Your task to perform on an android device: Open calendar and show me the first week of next month Image 0: 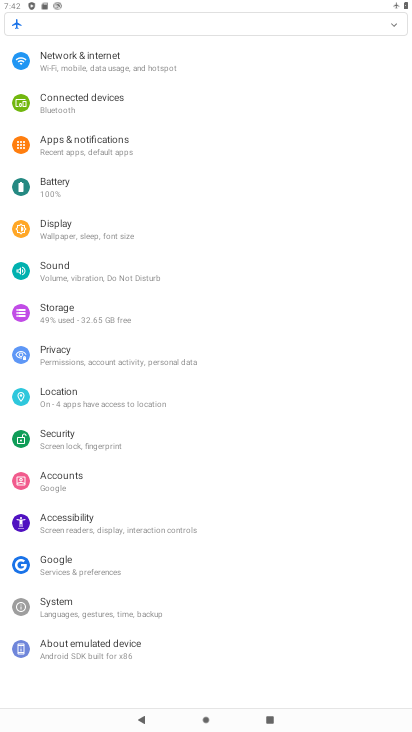
Step 0: press home button
Your task to perform on an android device: Open calendar and show me the first week of next month Image 1: 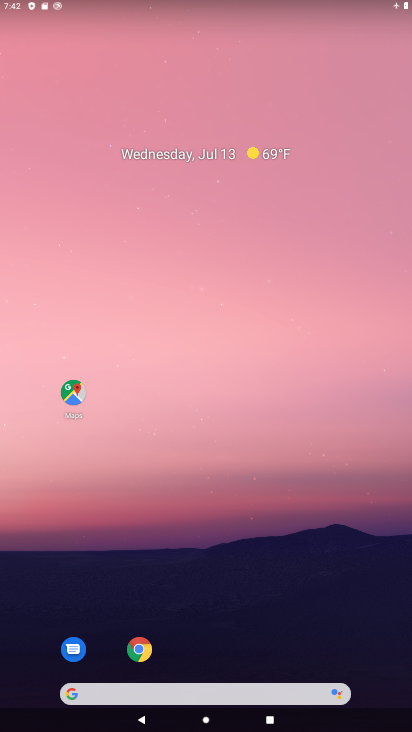
Step 1: drag from (175, 688) to (196, 266)
Your task to perform on an android device: Open calendar and show me the first week of next month Image 2: 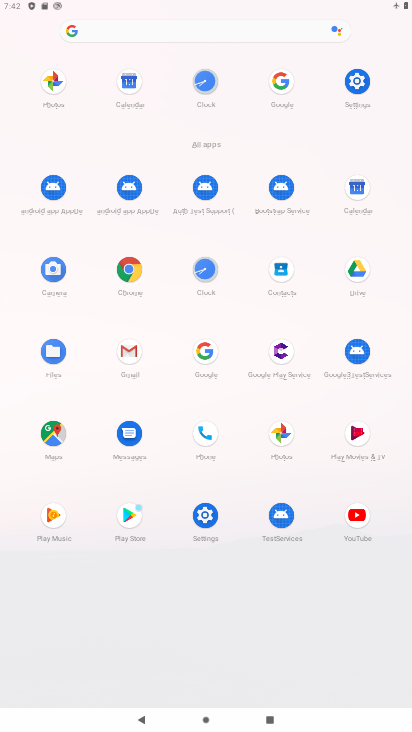
Step 2: click (349, 196)
Your task to perform on an android device: Open calendar and show me the first week of next month Image 3: 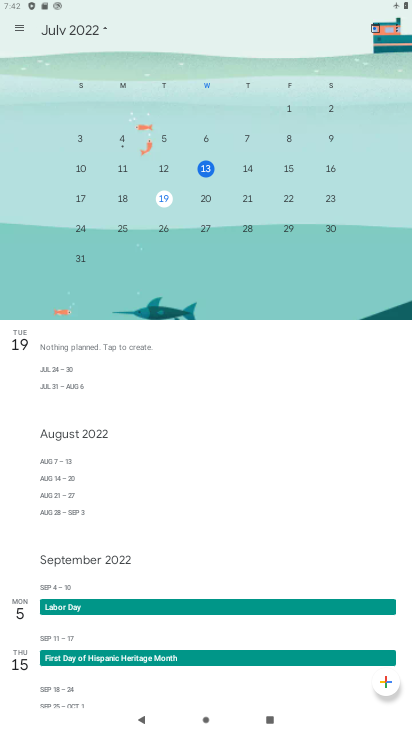
Step 3: drag from (380, 261) to (1, 271)
Your task to perform on an android device: Open calendar and show me the first week of next month Image 4: 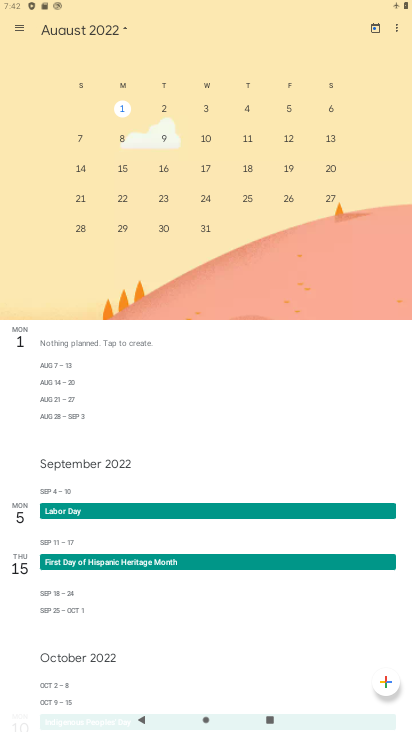
Step 4: click (123, 111)
Your task to perform on an android device: Open calendar and show me the first week of next month Image 5: 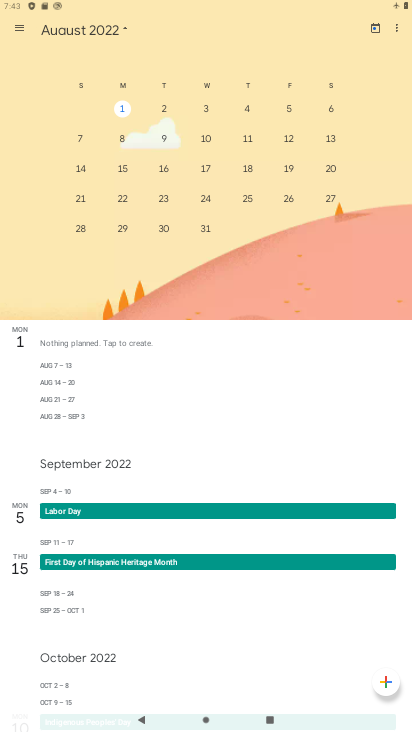
Step 5: task complete